Your task to perform on an android device: Clear all items from cart on ebay.com. Add macbook pro to the cart on ebay.com Image 0: 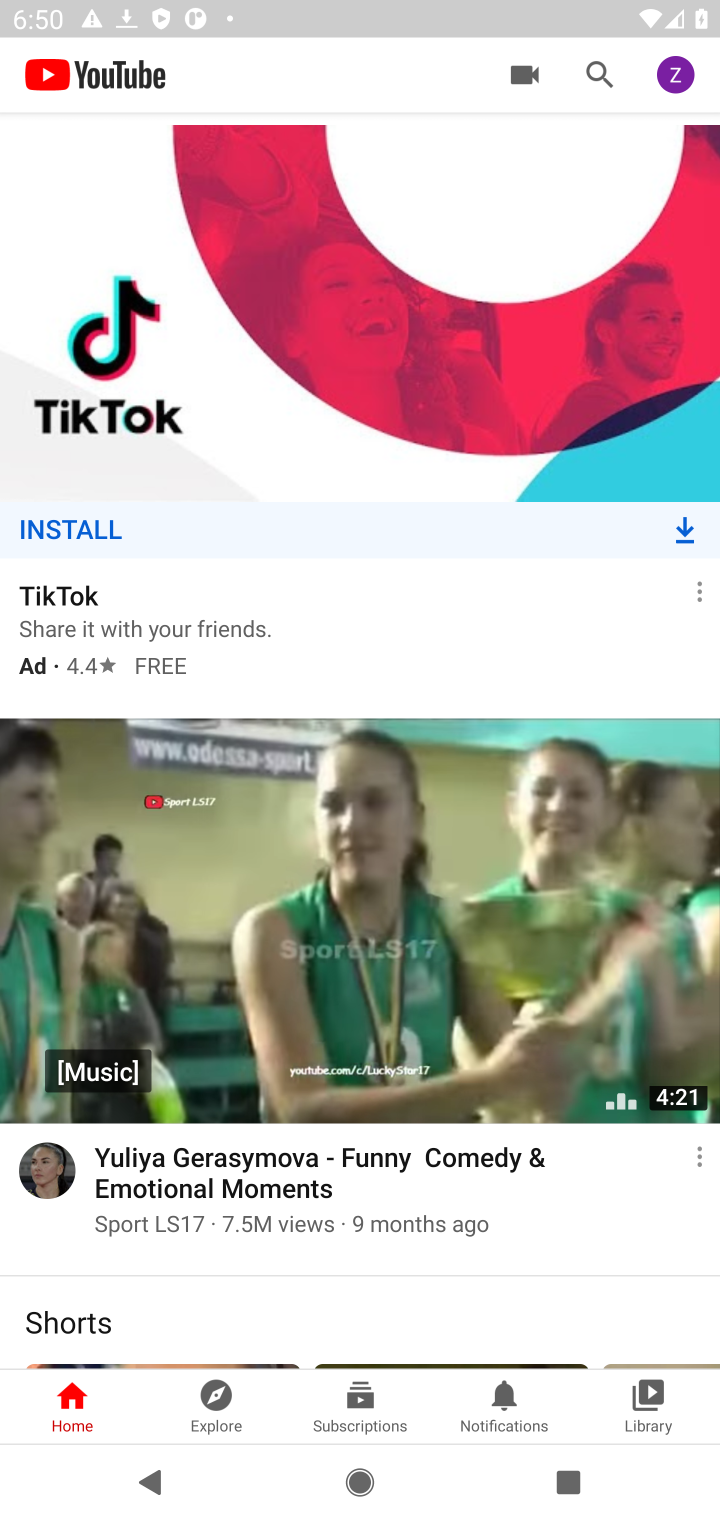
Step 0: press home button
Your task to perform on an android device: Clear all items from cart on ebay.com. Add macbook pro to the cart on ebay.com Image 1: 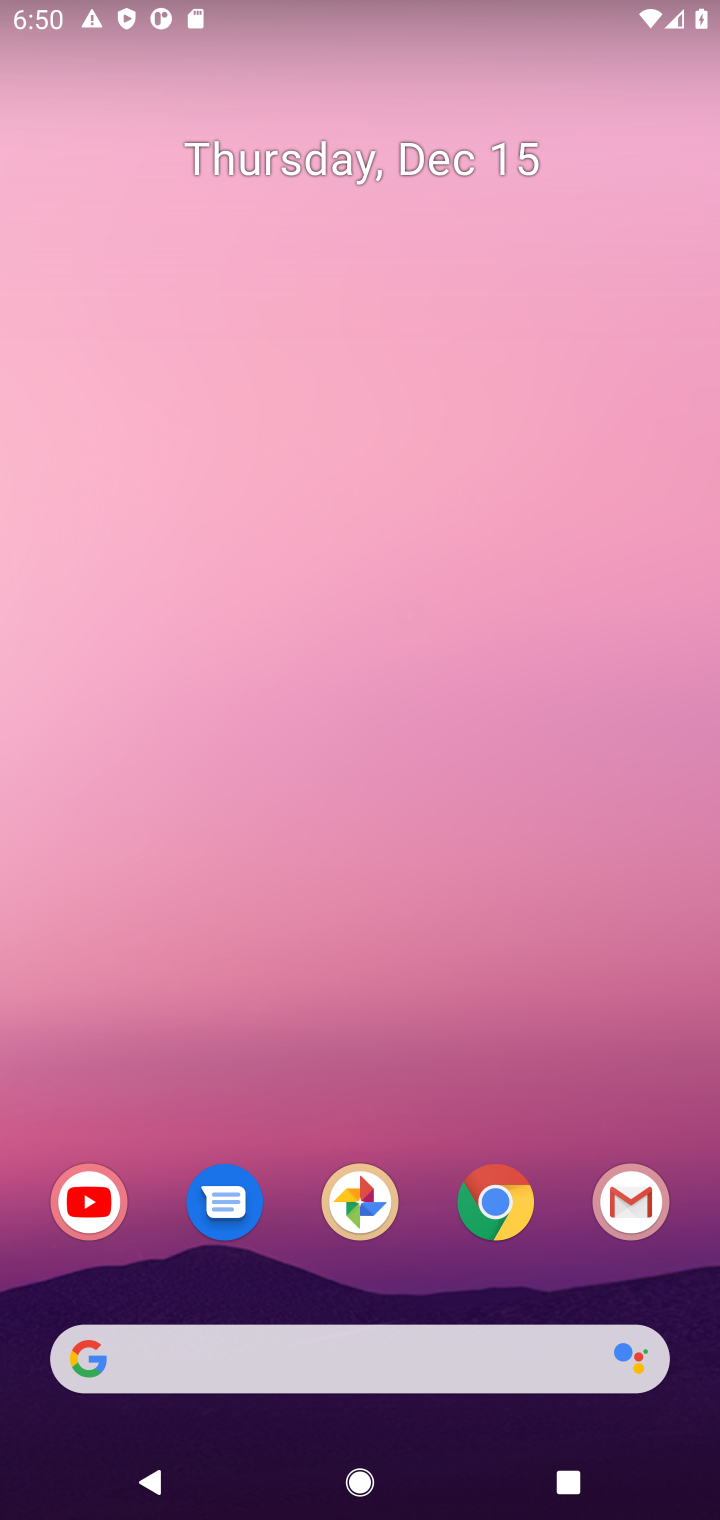
Step 1: click (487, 1219)
Your task to perform on an android device: Clear all items from cart on ebay.com. Add macbook pro to the cart on ebay.com Image 2: 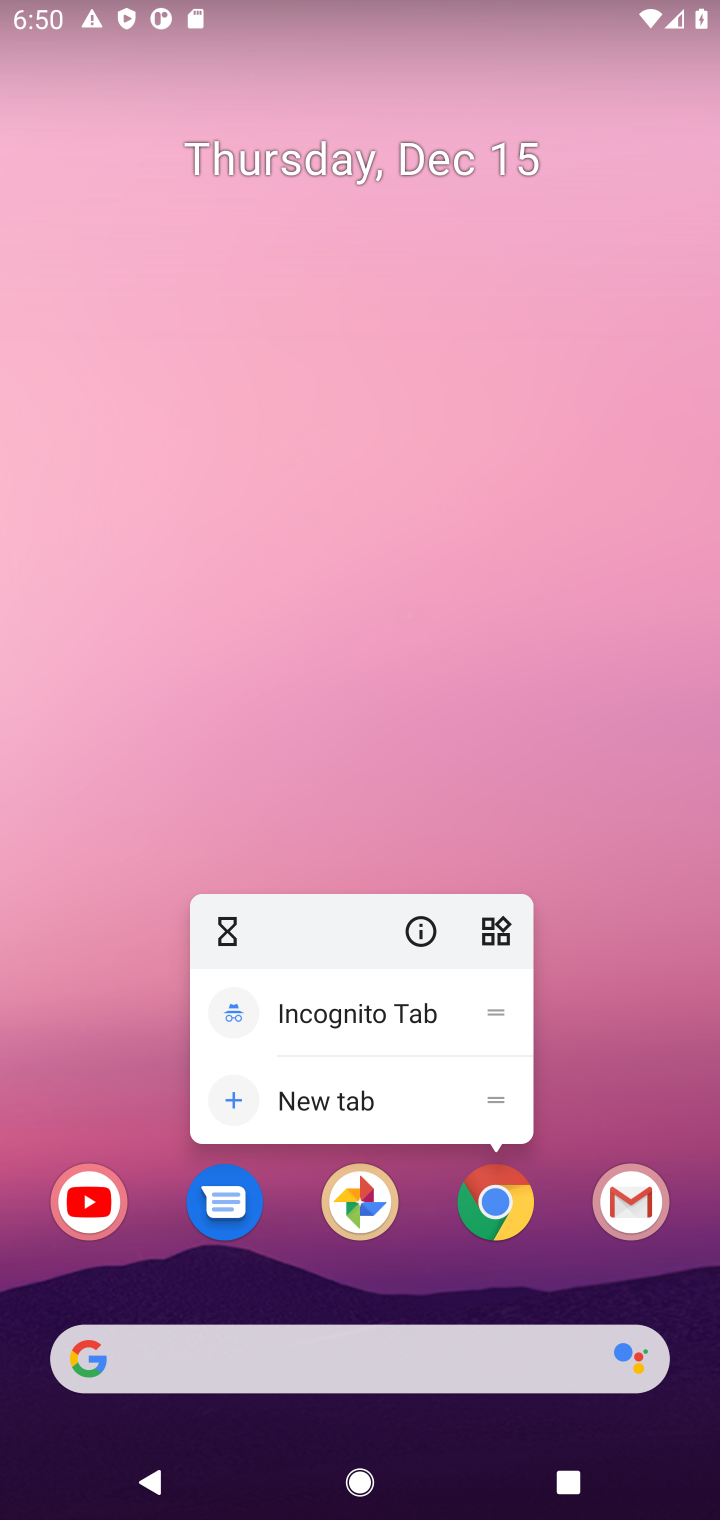
Step 2: click (498, 1199)
Your task to perform on an android device: Clear all items from cart on ebay.com. Add macbook pro to the cart on ebay.com Image 3: 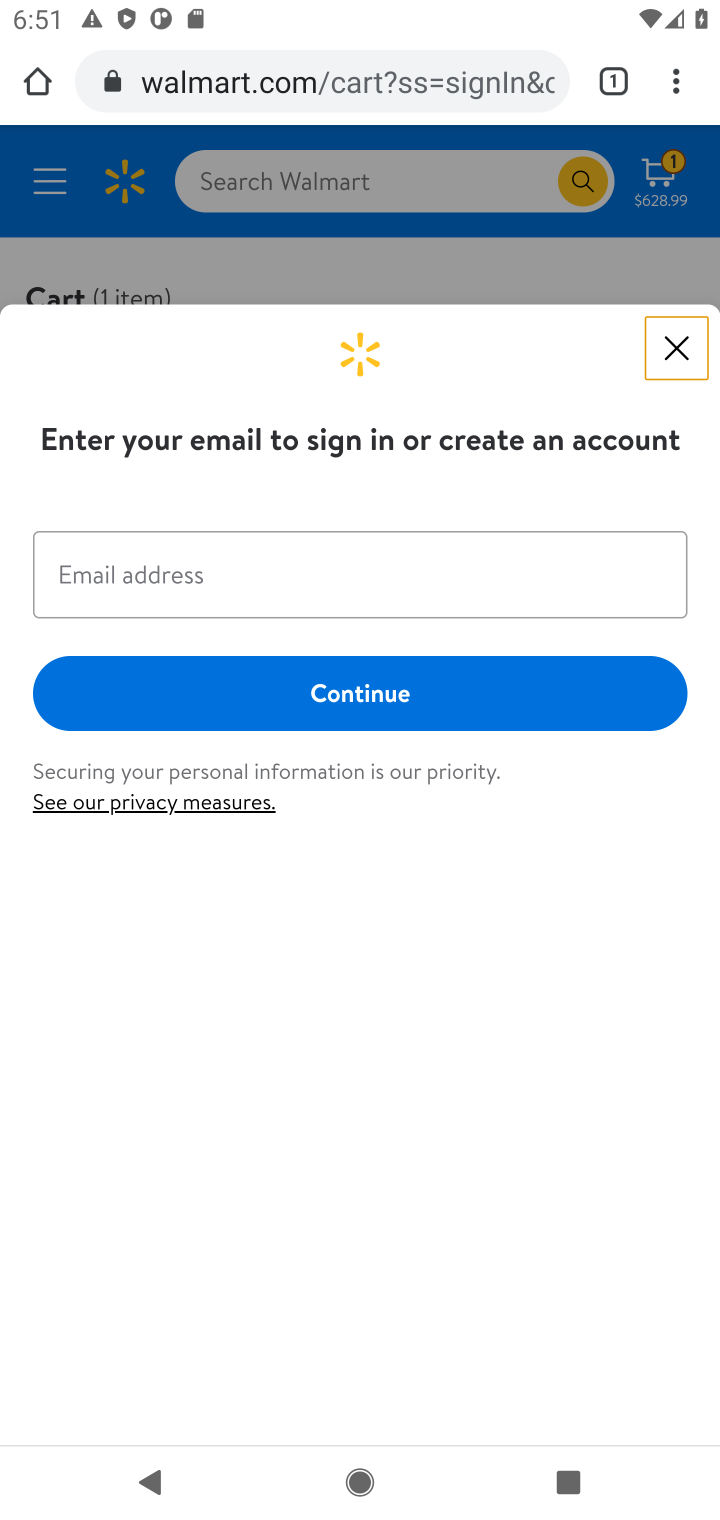
Step 3: click (285, 90)
Your task to perform on an android device: Clear all items from cart on ebay.com. Add macbook pro to the cart on ebay.com Image 4: 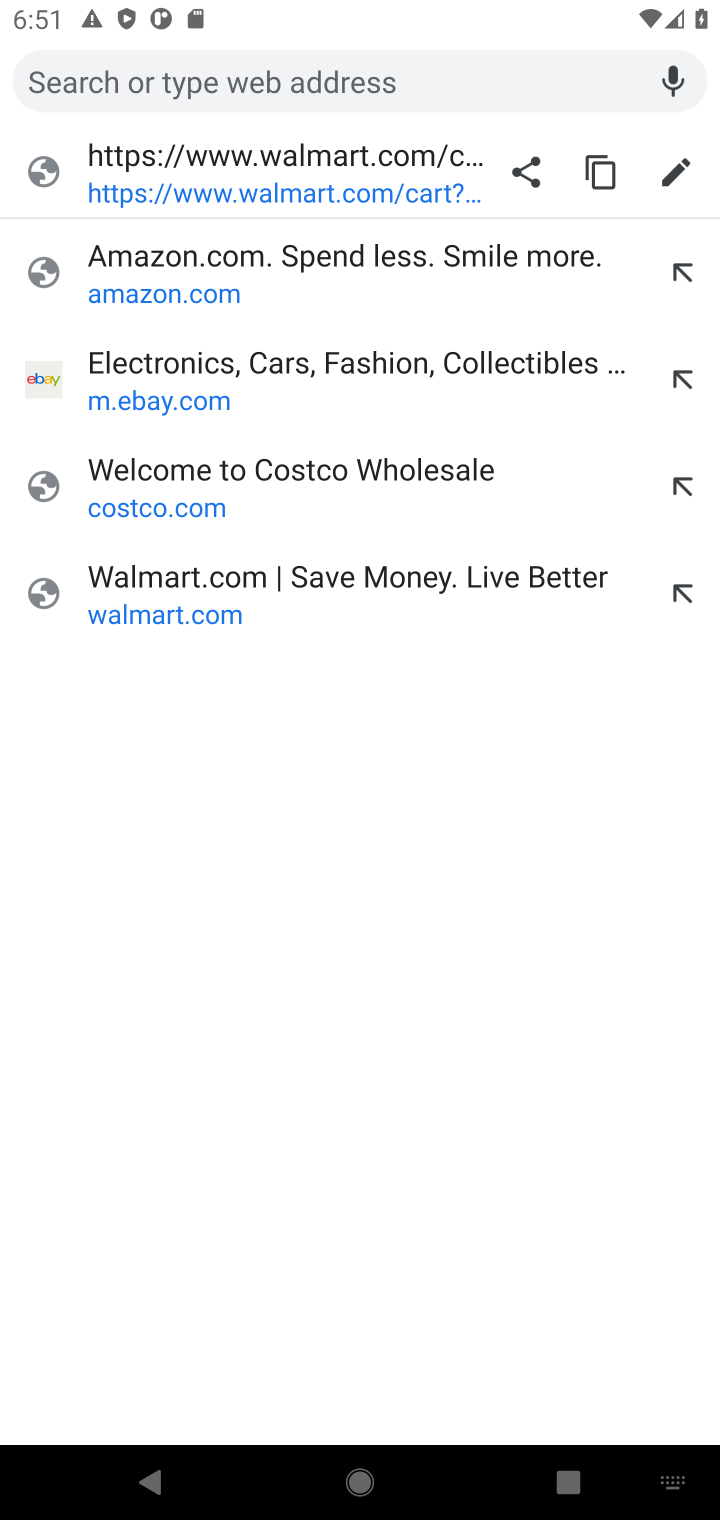
Step 4: click (137, 413)
Your task to perform on an android device: Clear all items from cart on ebay.com. Add macbook pro to the cart on ebay.com Image 5: 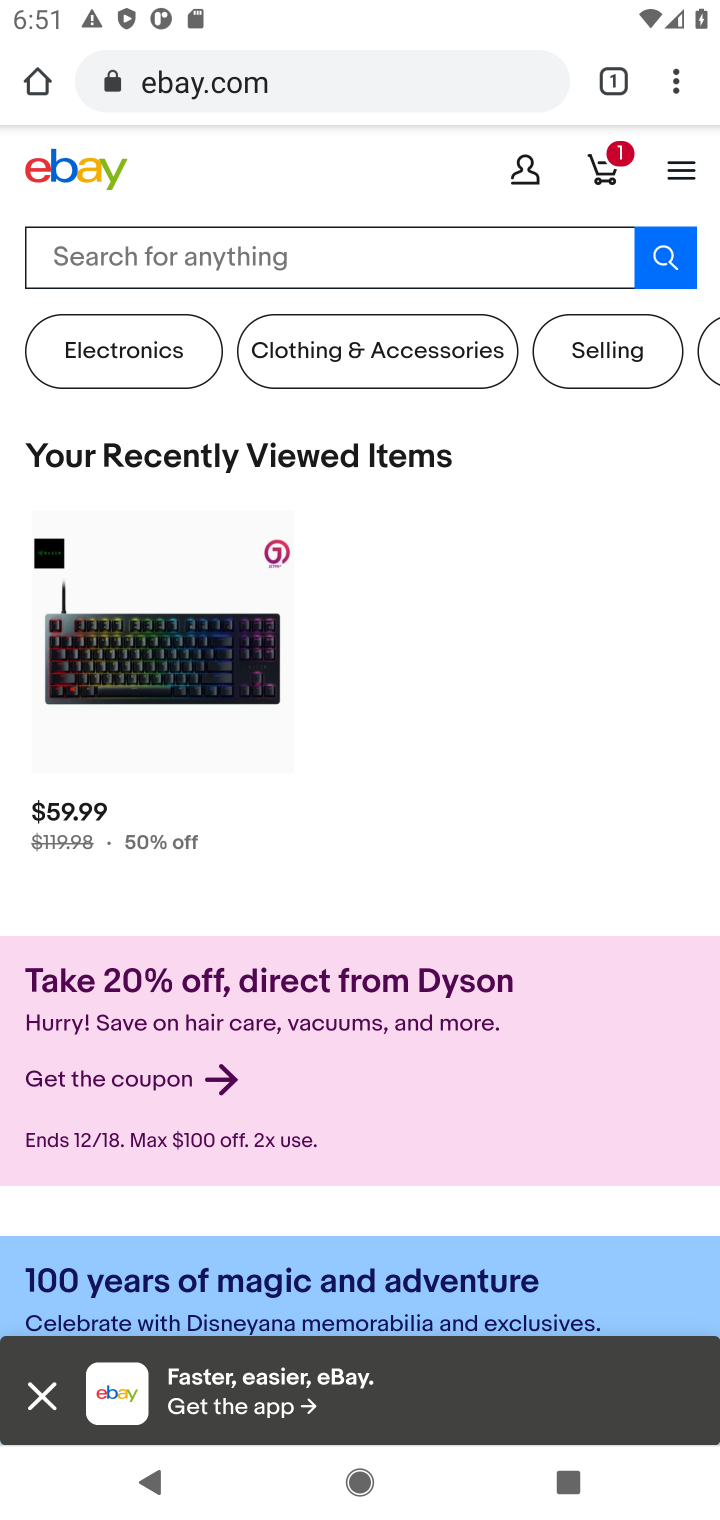
Step 5: click (607, 176)
Your task to perform on an android device: Clear all items from cart on ebay.com. Add macbook pro to the cart on ebay.com Image 6: 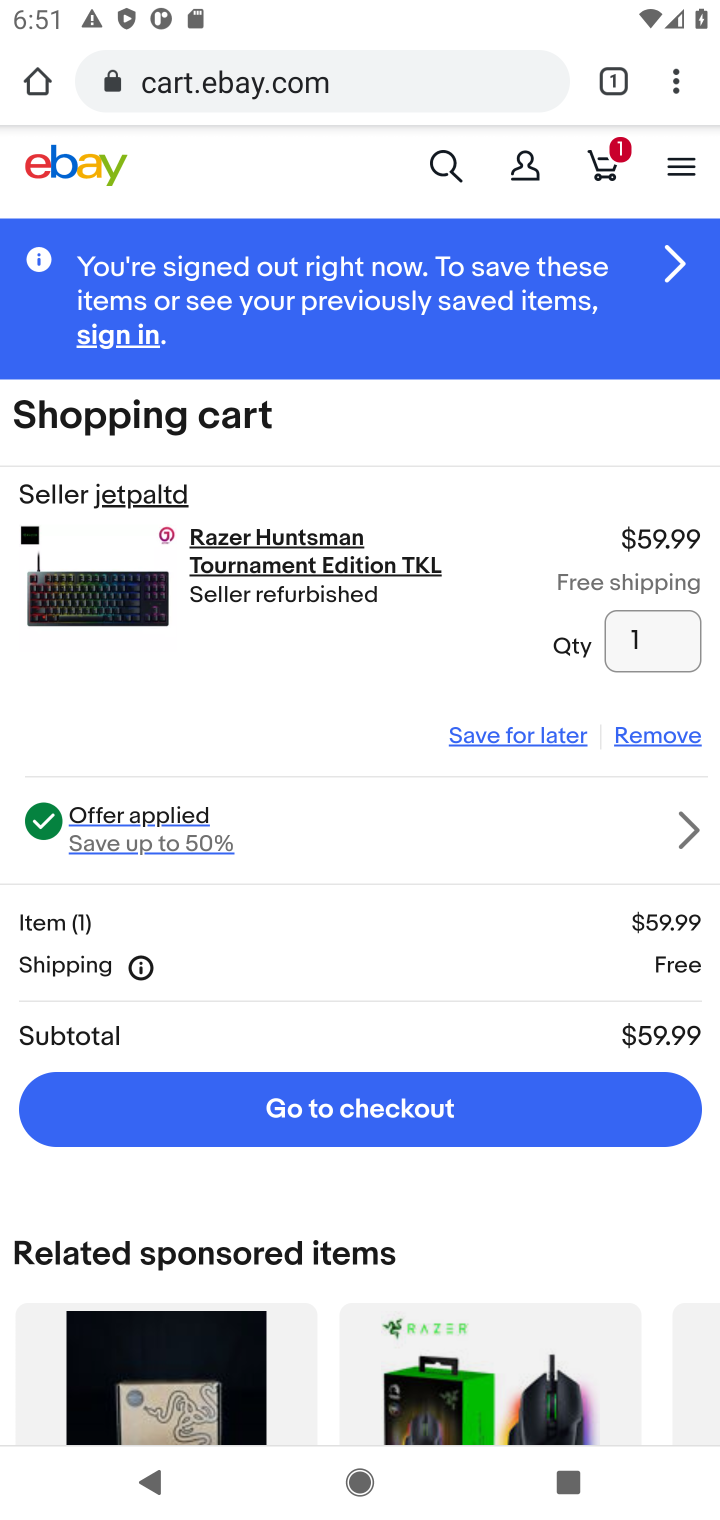
Step 6: click (650, 740)
Your task to perform on an android device: Clear all items from cart on ebay.com. Add macbook pro to the cart on ebay.com Image 7: 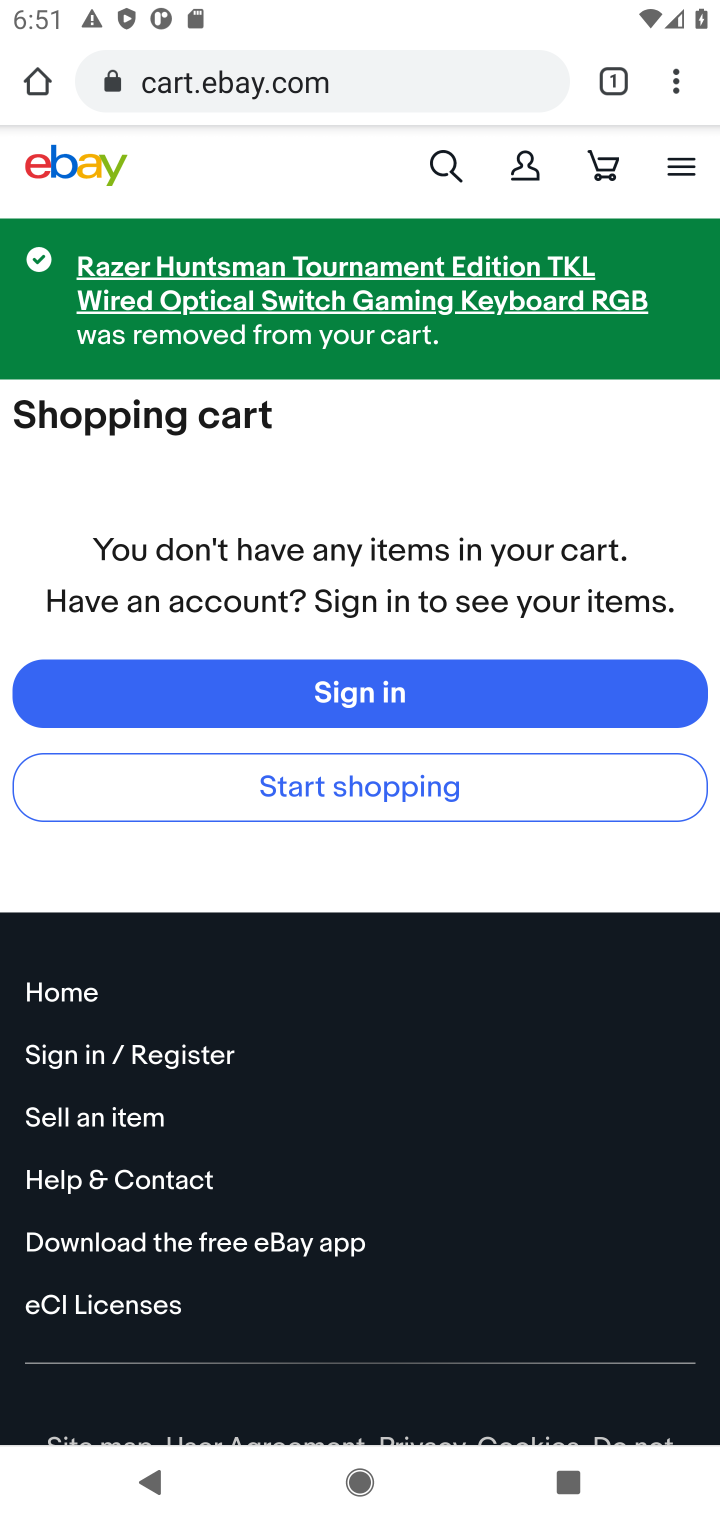
Step 7: click (438, 183)
Your task to perform on an android device: Clear all items from cart on ebay.com. Add macbook pro to the cart on ebay.com Image 8: 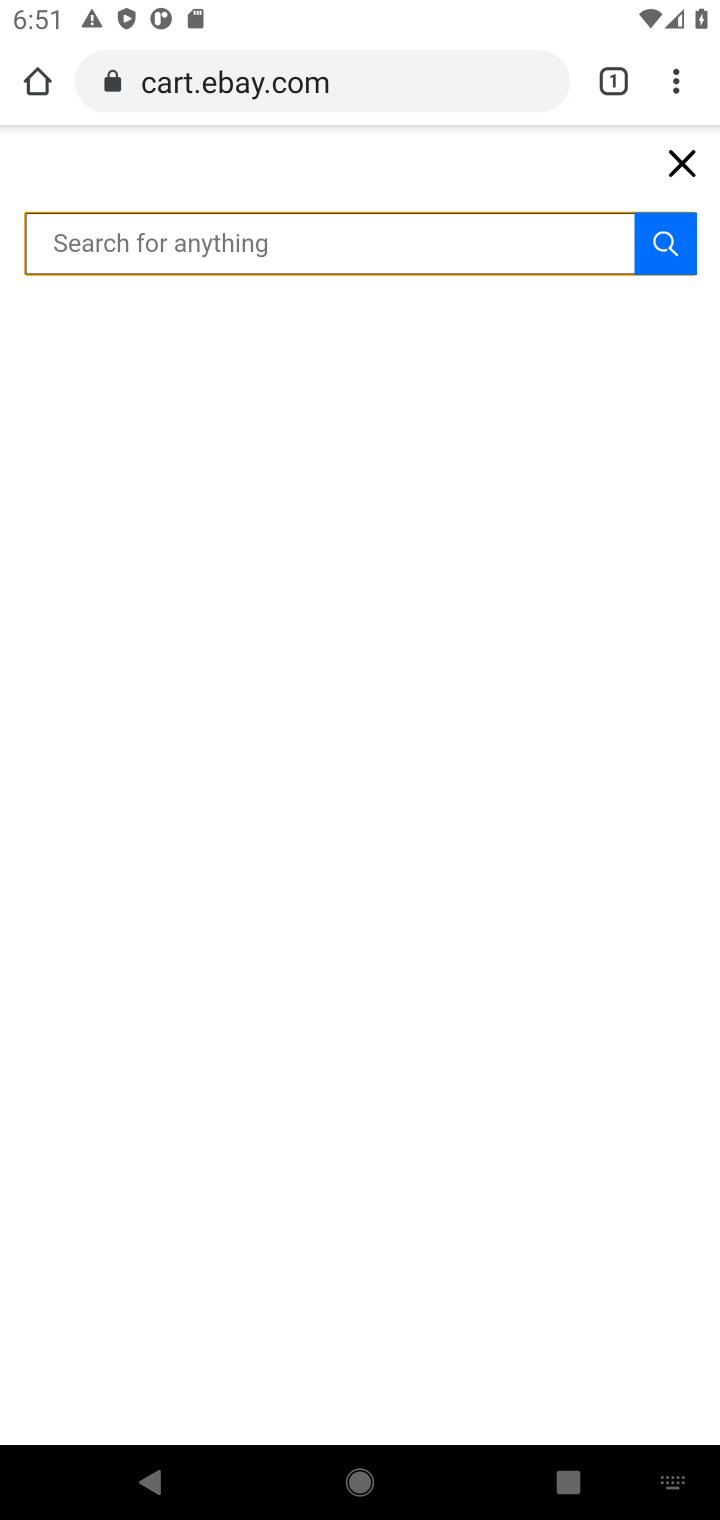
Step 8: type "macbook pro"
Your task to perform on an android device: Clear all items from cart on ebay.com. Add macbook pro to the cart on ebay.com Image 9: 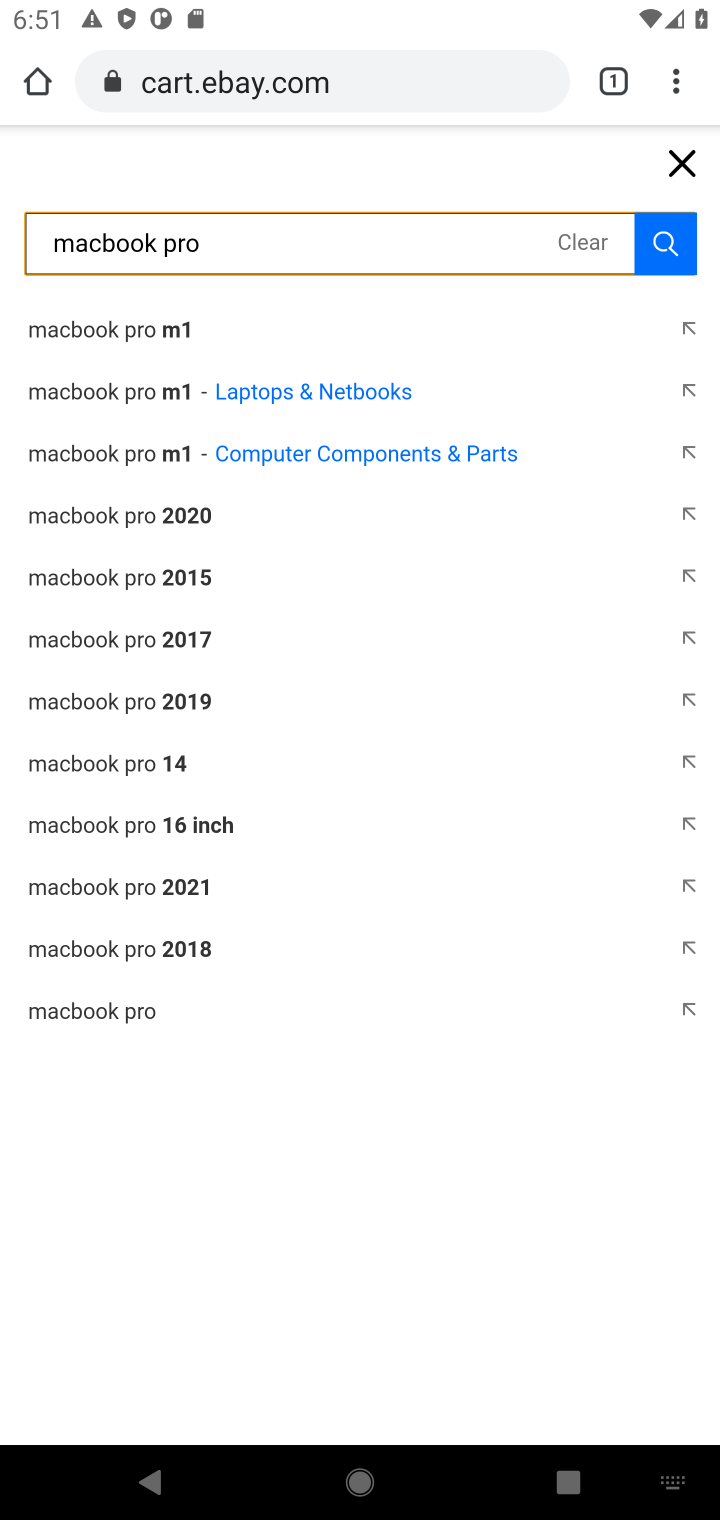
Step 9: click (92, 1018)
Your task to perform on an android device: Clear all items from cart on ebay.com. Add macbook pro to the cart on ebay.com Image 10: 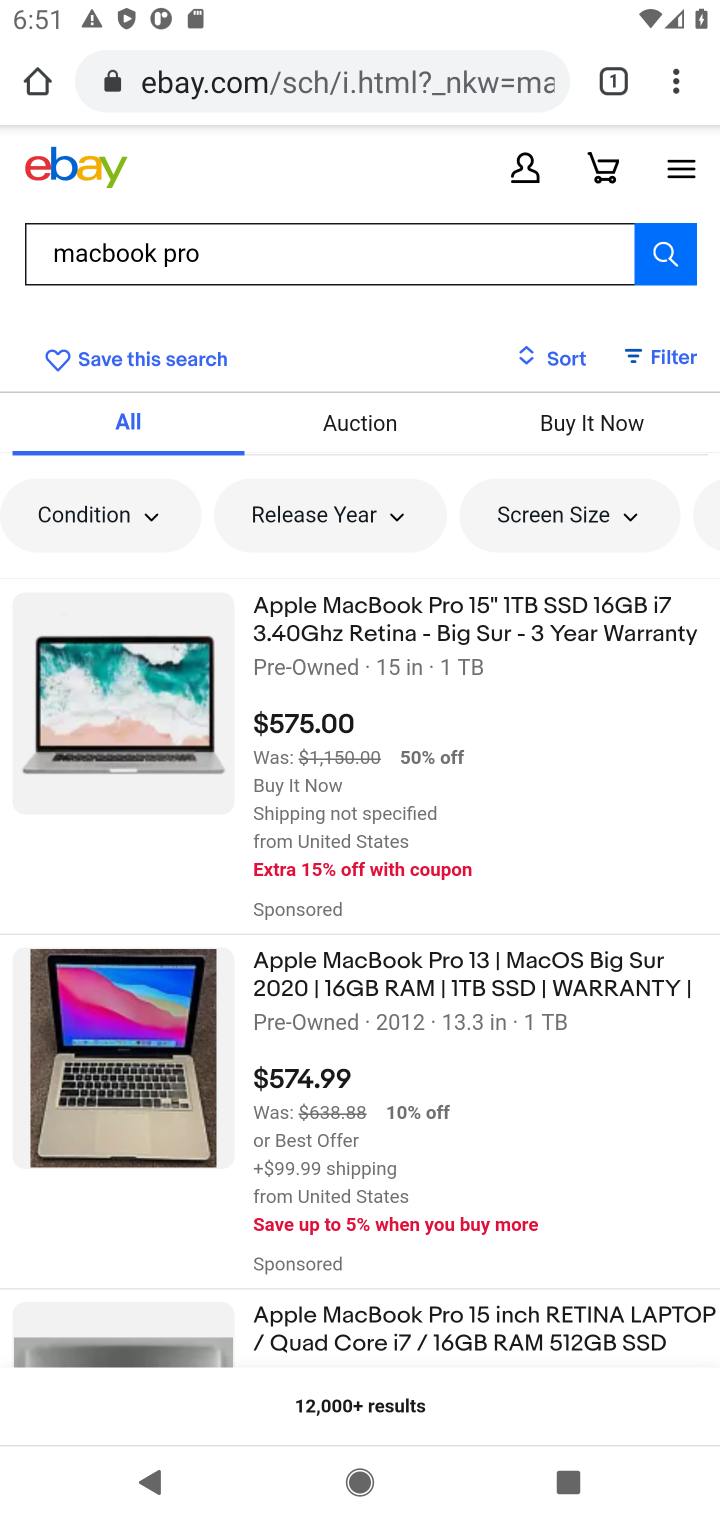
Step 10: click (358, 645)
Your task to perform on an android device: Clear all items from cart on ebay.com. Add macbook pro to the cart on ebay.com Image 11: 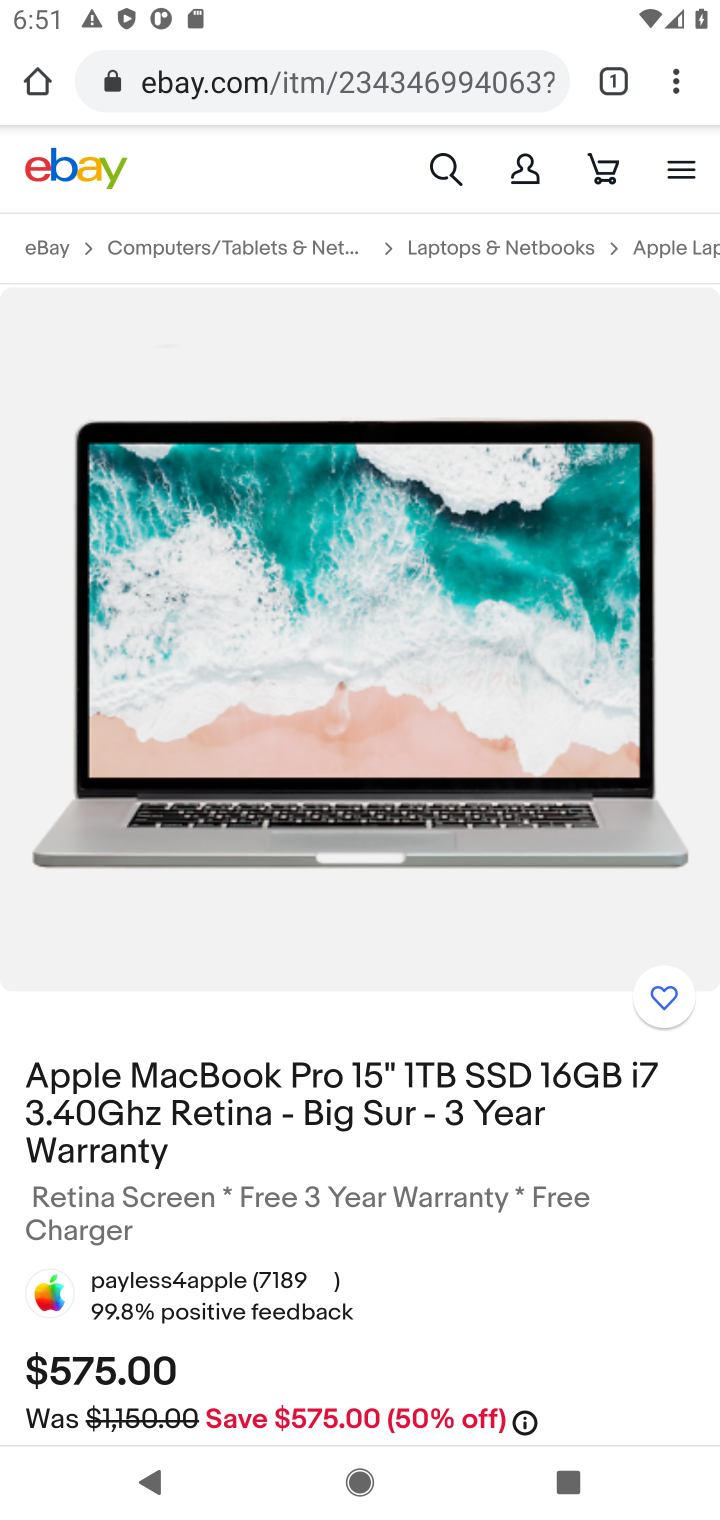
Step 11: drag from (350, 1130) to (389, 471)
Your task to perform on an android device: Clear all items from cart on ebay.com. Add macbook pro to the cart on ebay.com Image 12: 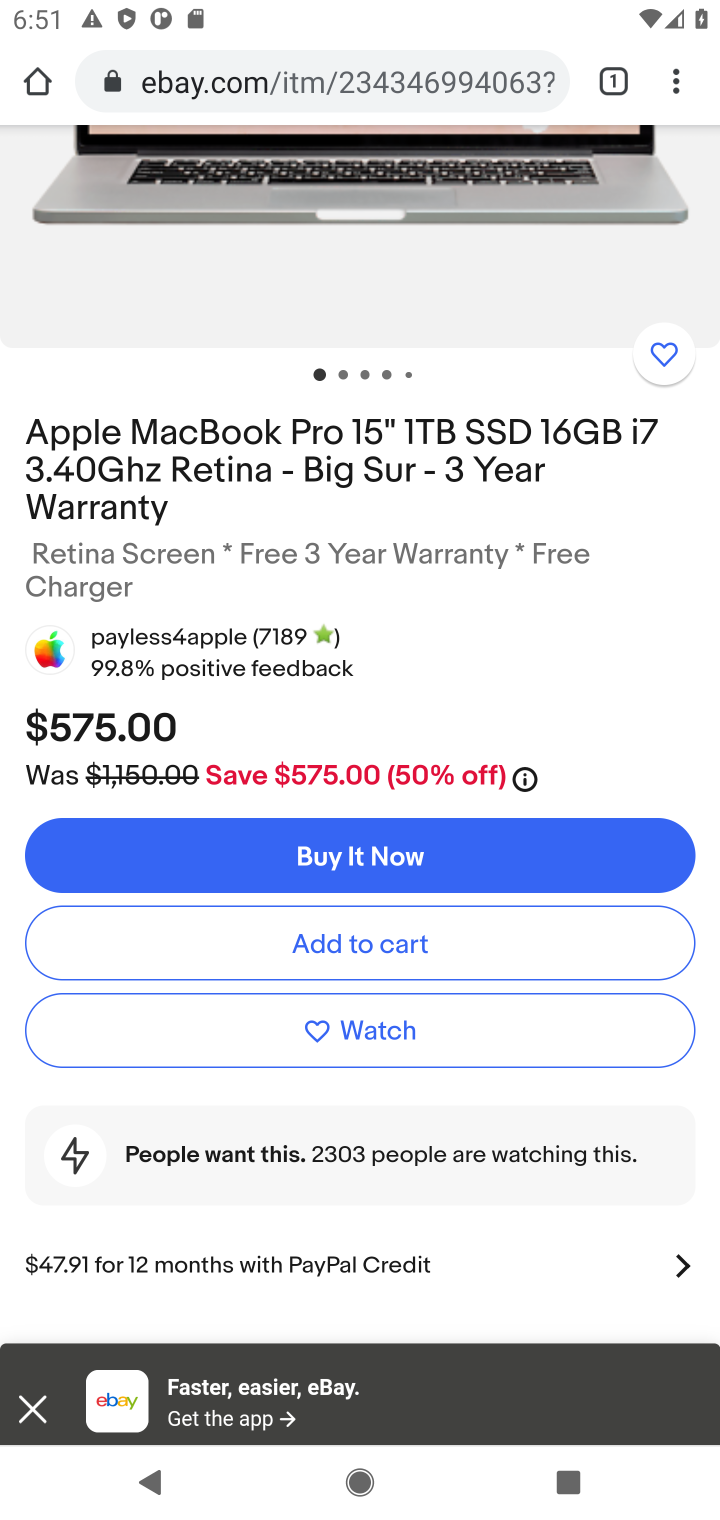
Step 12: click (333, 929)
Your task to perform on an android device: Clear all items from cart on ebay.com. Add macbook pro to the cart on ebay.com Image 13: 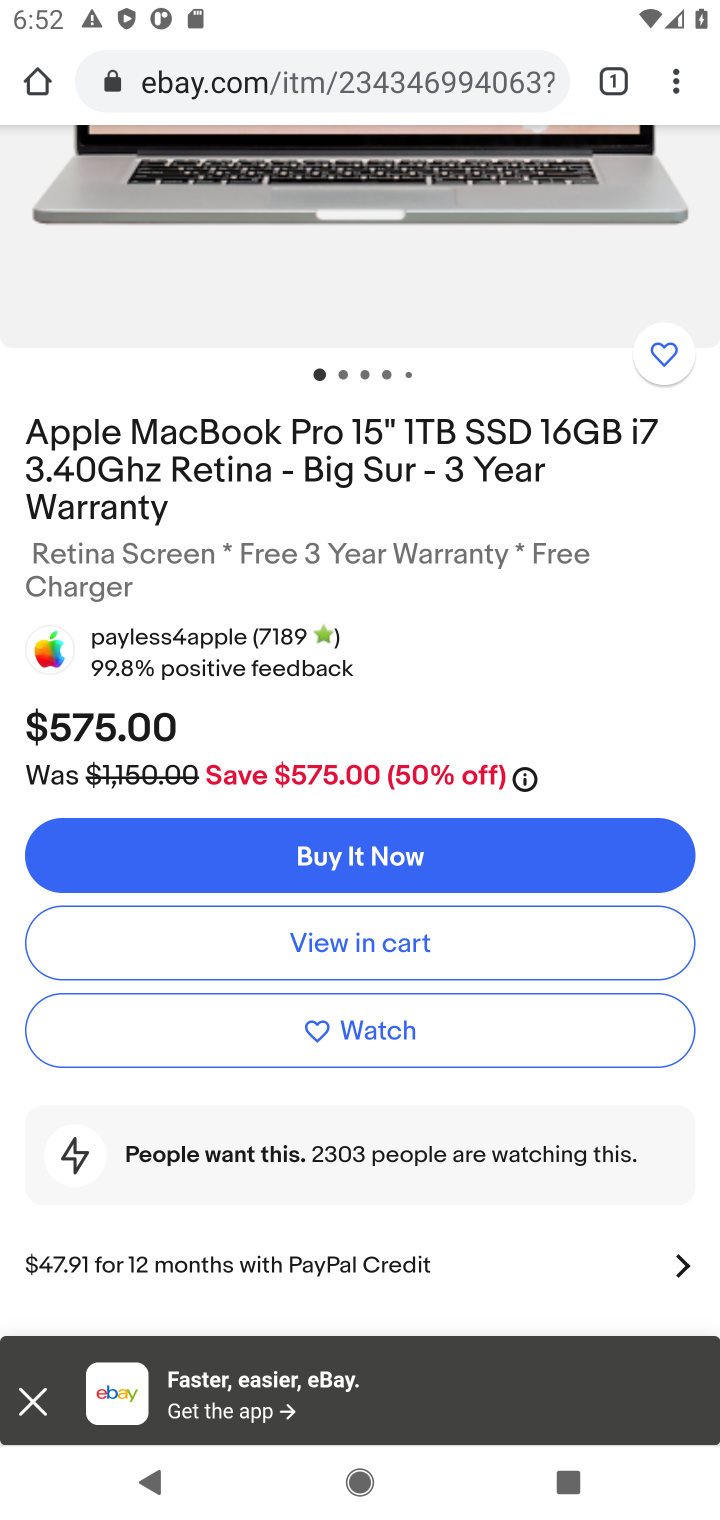
Step 13: task complete